Your task to perform on an android device: Go to privacy settings Image 0: 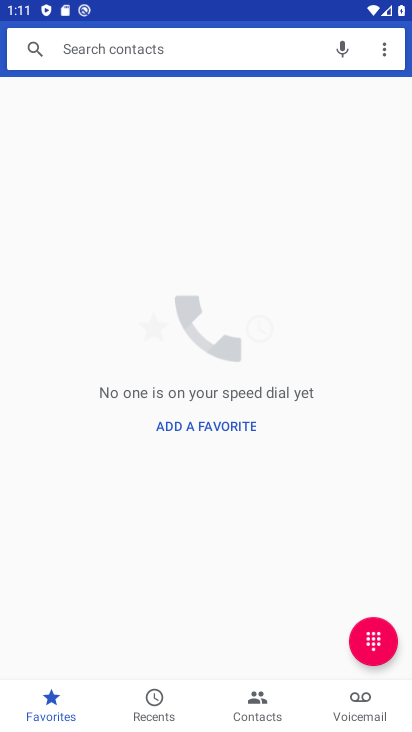
Step 0: press home button
Your task to perform on an android device: Go to privacy settings Image 1: 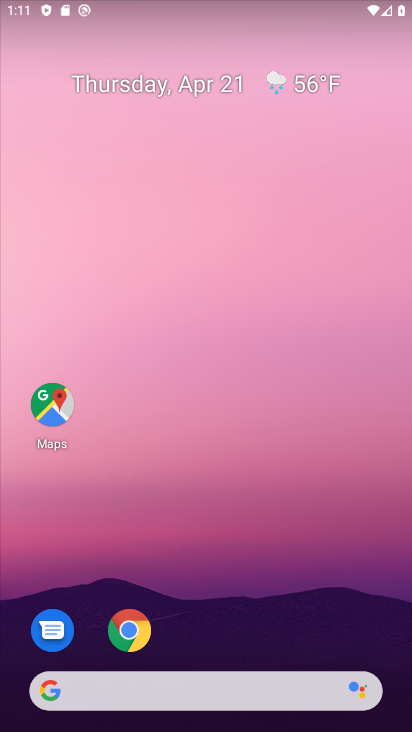
Step 1: drag from (164, 693) to (275, 9)
Your task to perform on an android device: Go to privacy settings Image 2: 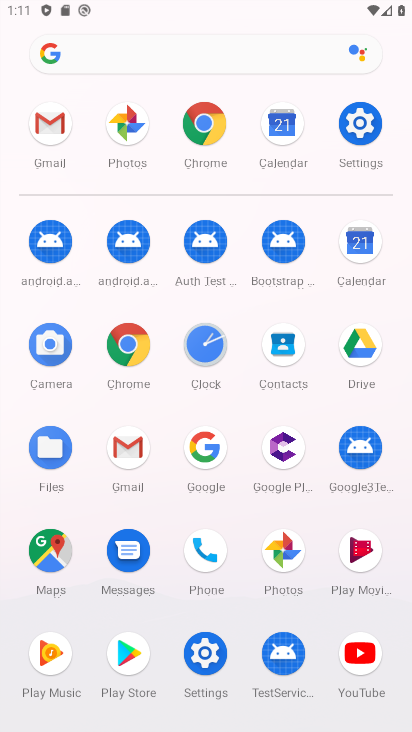
Step 2: click (350, 137)
Your task to perform on an android device: Go to privacy settings Image 3: 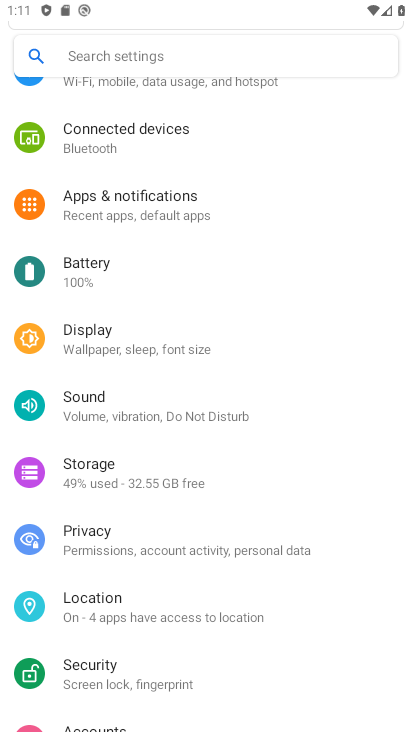
Step 3: click (186, 549)
Your task to perform on an android device: Go to privacy settings Image 4: 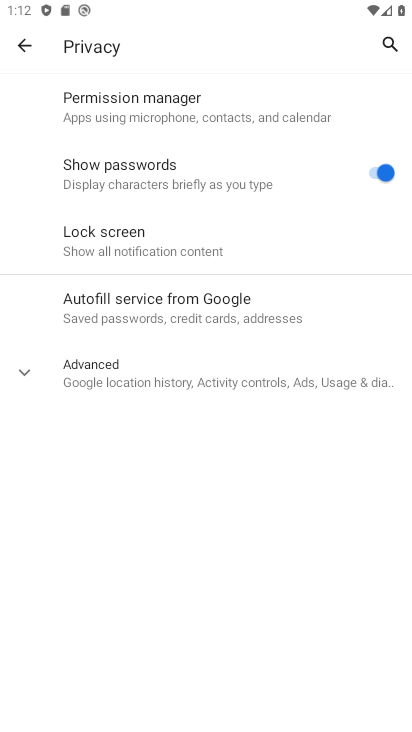
Step 4: task complete